Your task to perform on an android device: Open Android settings Image 0: 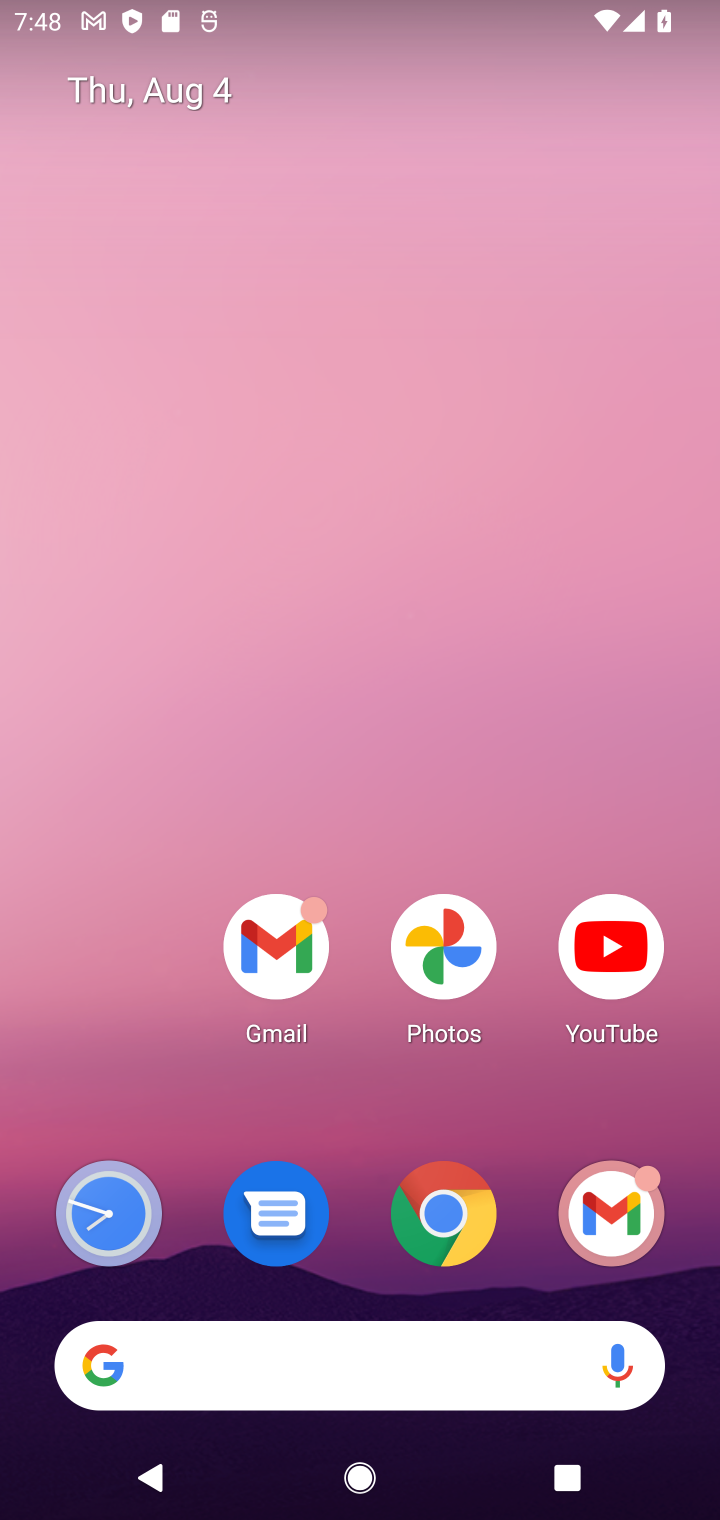
Step 0: drag from (533, 1302) to (482, 386)
Your task to perform on an android device: Open Android settings Image 1: 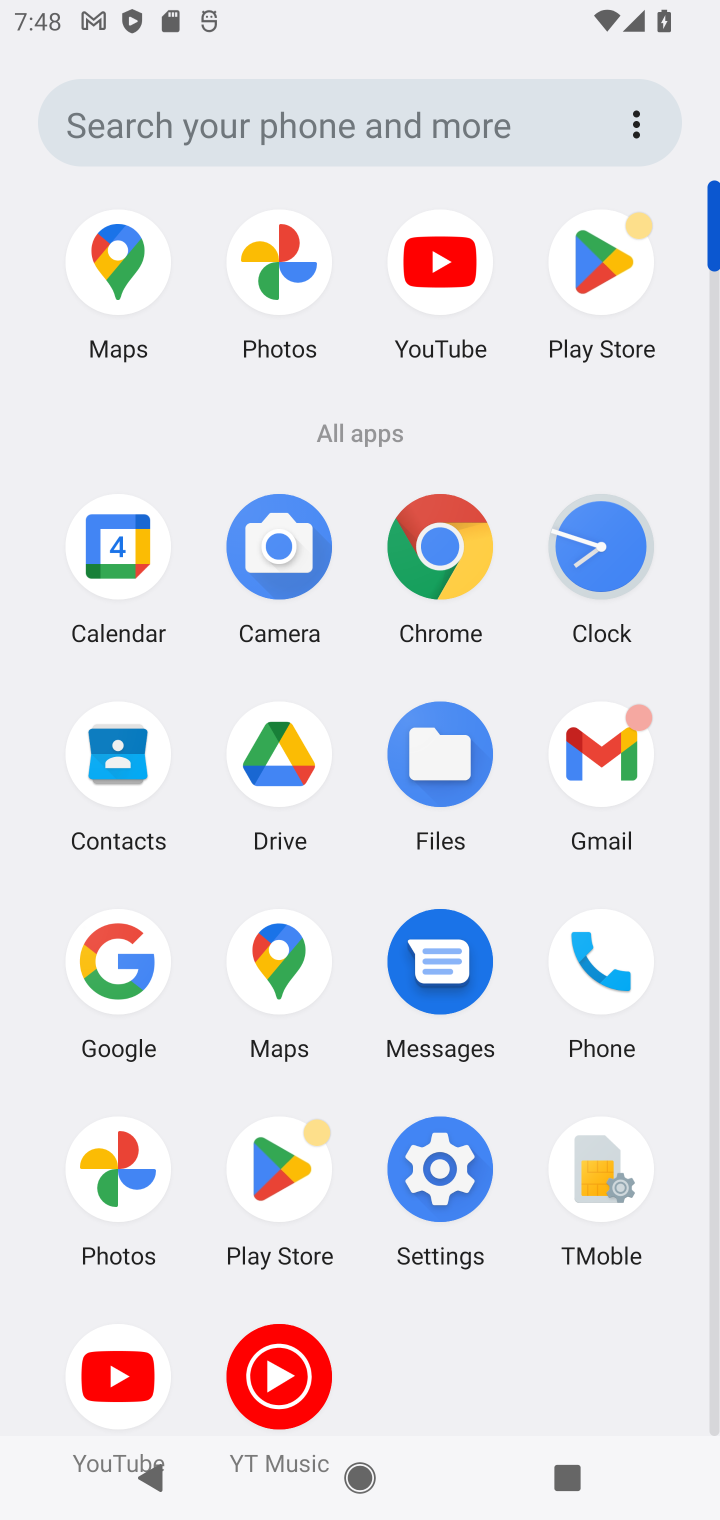
Step 1: click (429, 1244)
Your task to perform on an android device: Open Android settings Image 2: 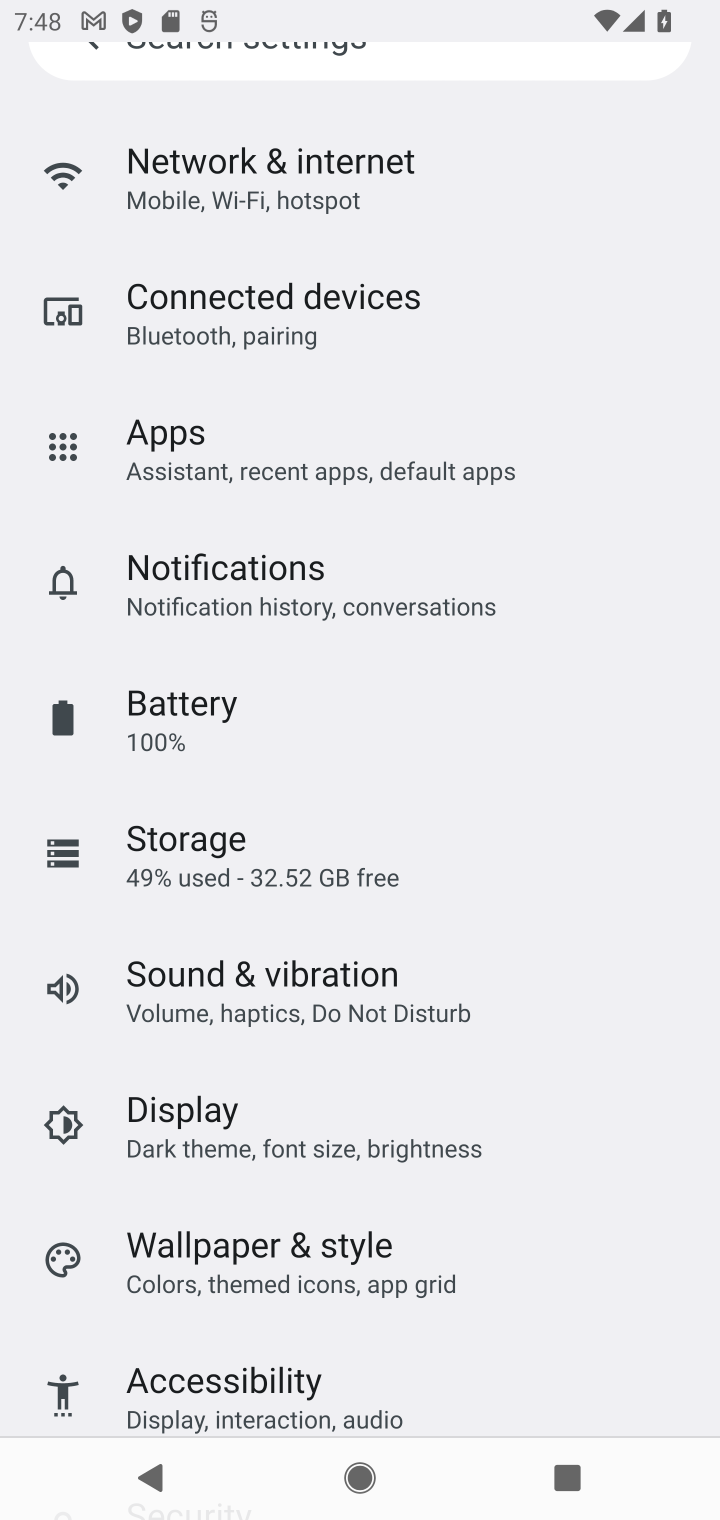
Step 2: task complete